Your task to perform on an android device: Go to Android settings Image 0: 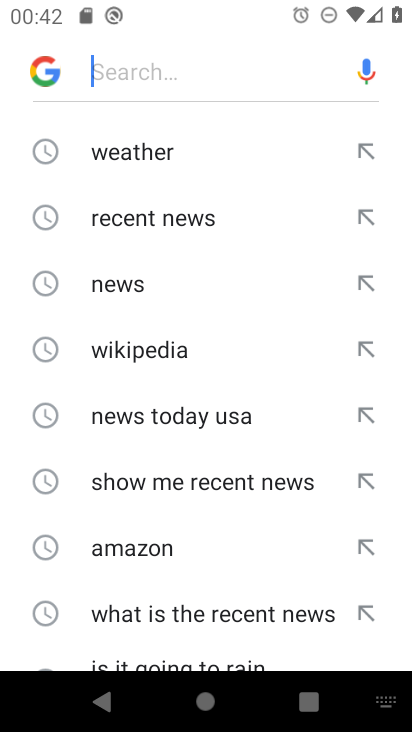
Step 0: press home button
Your task to perform on an android device: Go to Android settings Image 1: 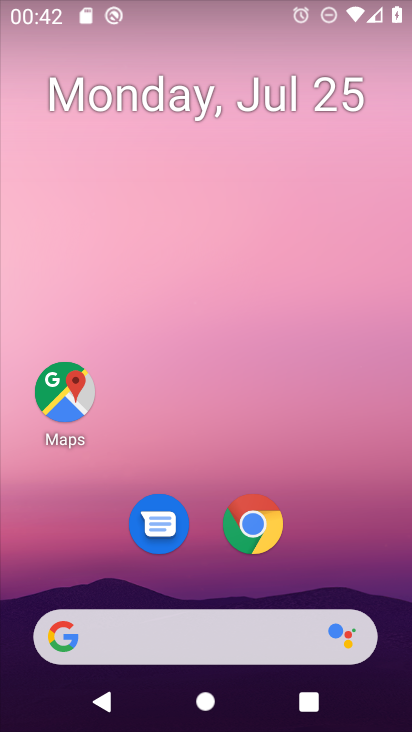
Step 1: drag from (160, 626) to (294, 160)
Your task to perform on an android device: Go to Android settings Image 2: 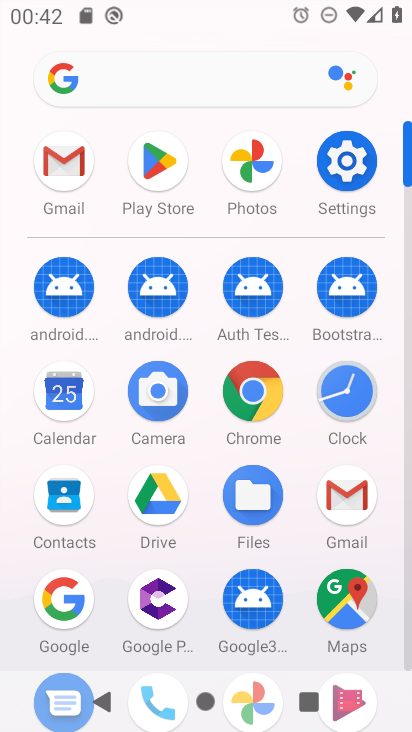
Step 2: click (348, 151)
Your task to perform on an android device: Go to Android settings Image 3: 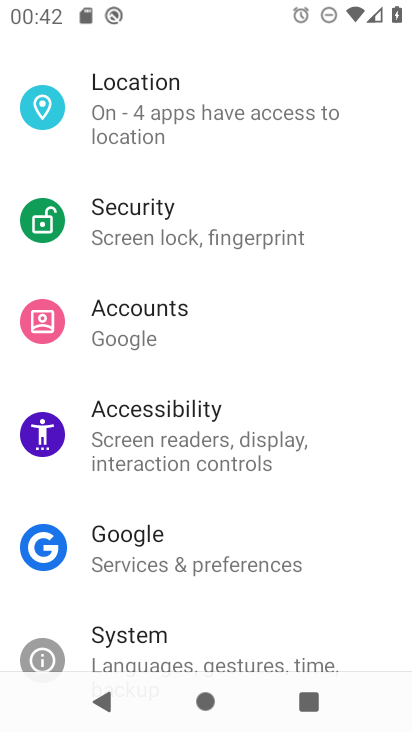
Step 3: task complete